Your task to perform on an android device: turn on airplane mode Image 0: 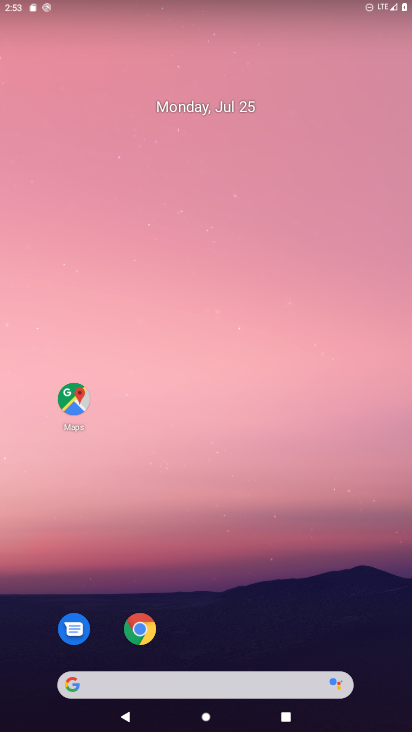
Step 0: drag from (331, 3) to (349, 420)
Your task to perform on an android device: turn on airplane mode Image 1: 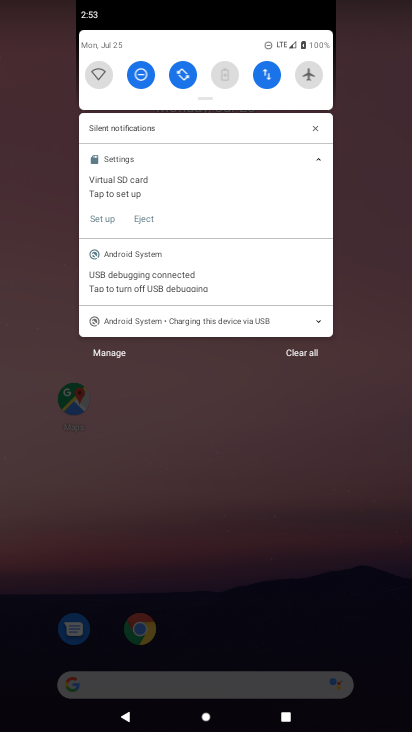
Step 1: click (306, 71)
Your task to perform on an android device: turn on airplane mode Image 2: 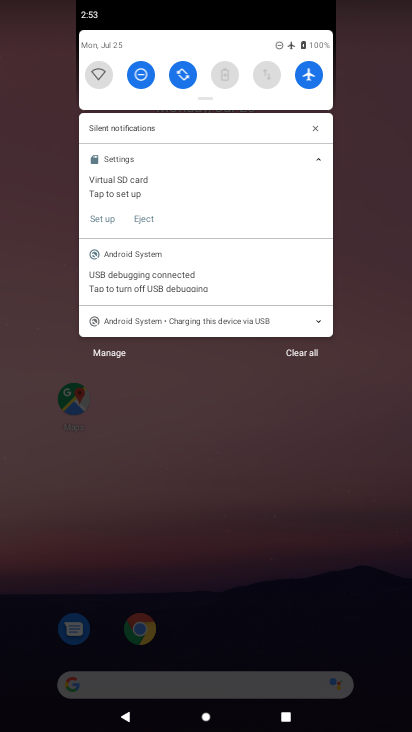
Step 2: task complete